Your task to perform on an android device: turn on notifications settings in the gmail app Image 0: 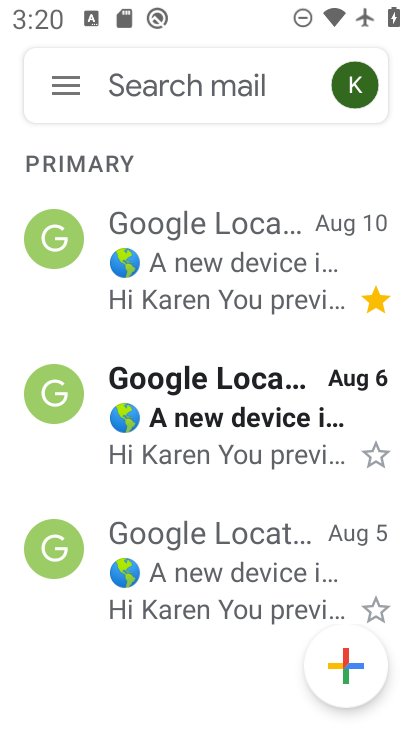
Step 0: click (58, 90)
Your task to perform on an android device: turn on notifications settings in the gmail app Image 1: 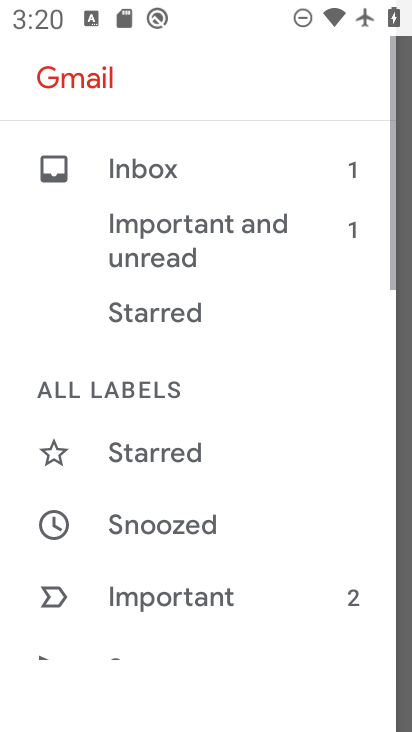
Step 1: drag from (197, 626) to (191, 298)
Your task to perform on an android device: turn on notifications settings in the gmail app Image 2: 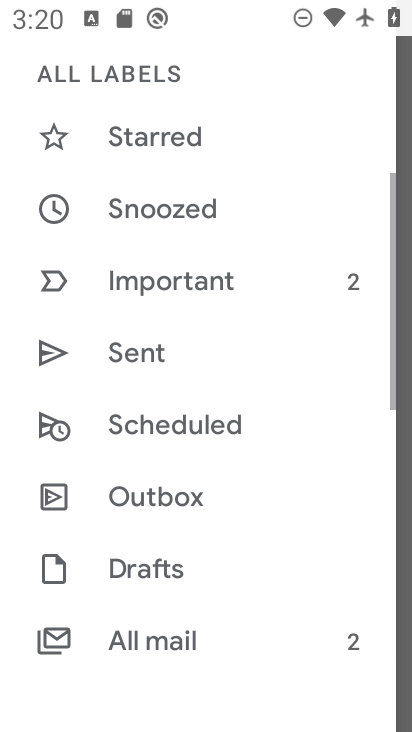
Step 2: drag from (205, 517) to (201, 269)
Your task to perform on an android device: turn on notifications settings in the gmail app Image 3: 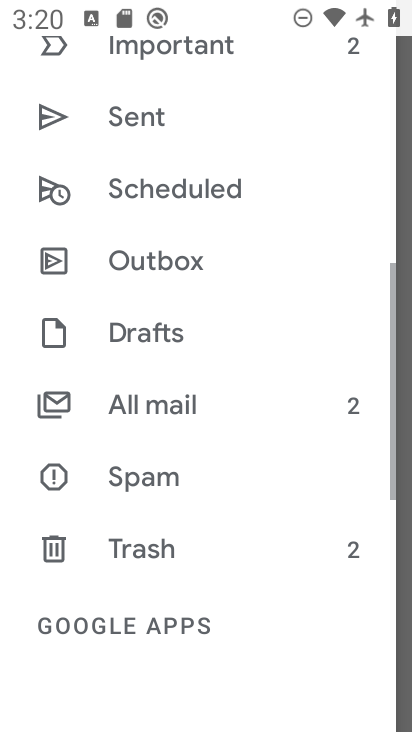
Step 3: drag from (216, 619) to (223, 287)
Your task to perform on an android device: turn on notifications settings in the gmail app Image 4: 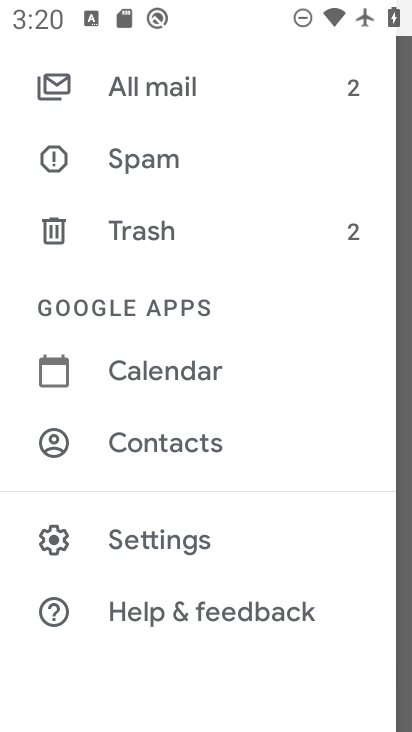
Step 4: click (190, 526)
Your task to perform on an android device: turn on notifications settings in the gmail app Image 5: 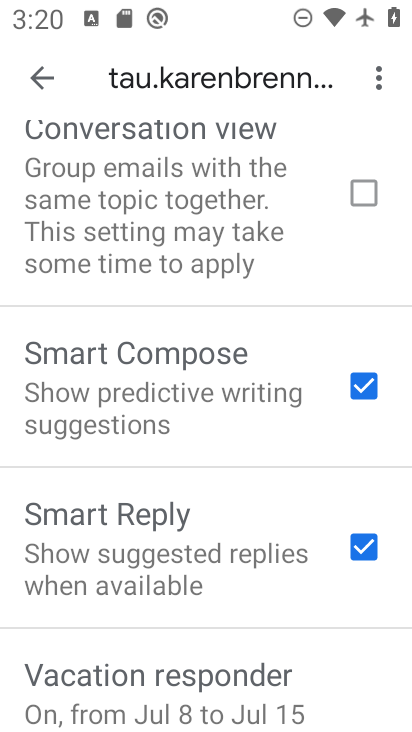
Step 5: drag from (190, 590) to (204, 185)
Your task to perform on an android device: turn on notifications settings in the gmail app Image 6: 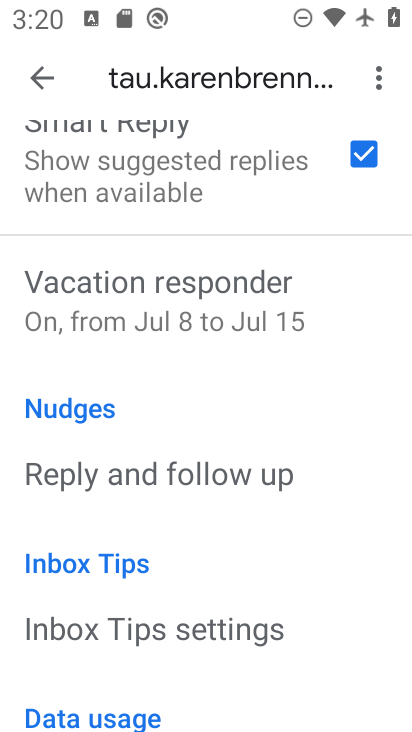
Step 6: drag from (212, 591) to (238, 148)
Your task to perform on an android device: turn on notifications settings in the gmail app Image 7: 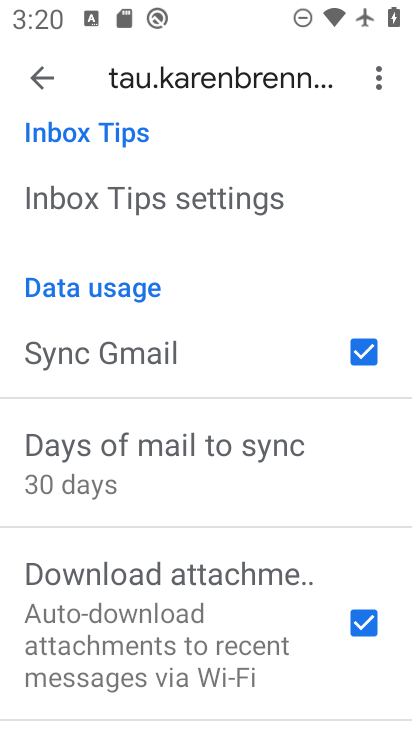
Step 7: drag from (222, 572) to (219, 200)
Your task to perform on an android device: turn on notifications settings in the gmail app Image 8: 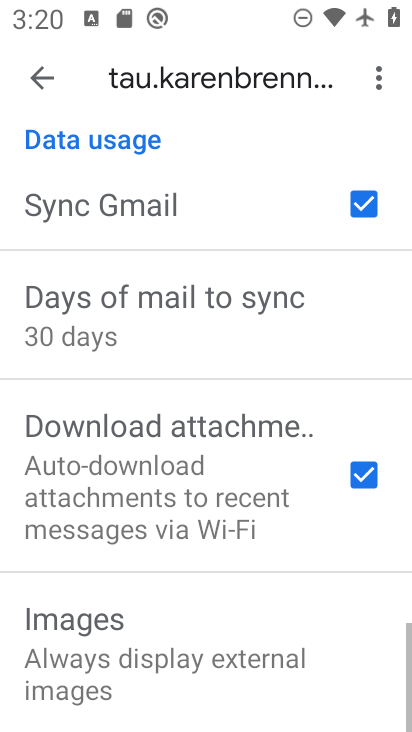
Step 8: drag from (204, 556) to (201, 211)
Your task to perform on an android device: turn on notifications settings in the gmail app Image 9: 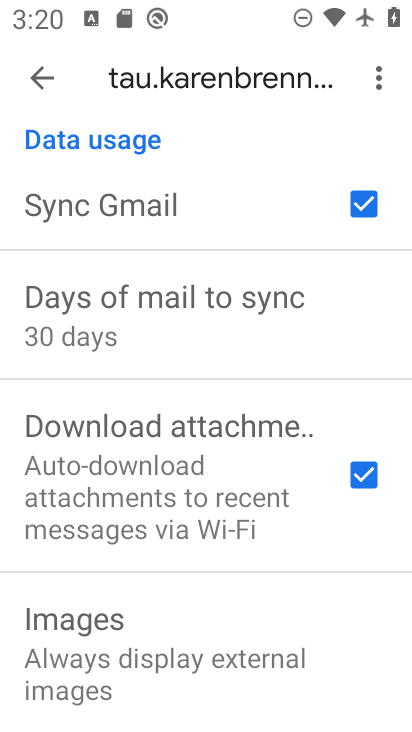
Step 9: drag from (201, 205) to (161, 572)
Your task to perform on an android device: turn on notifications settings in the gmail app Image 10: 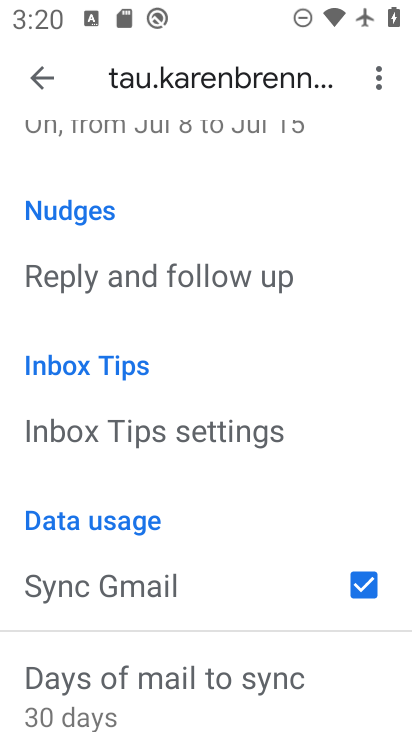
Step 10: drag from (174, 229) to (178, 581)
Your task to perform on an android device: turn on notifications settings in the gmail app Image 11: 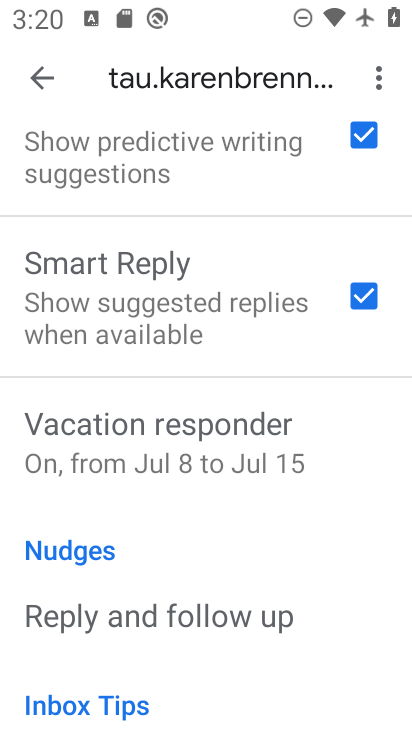
Step 11: drag from (166, 251) to (196, 572)
Your task to perform on an android device: turn on notifications settings in the gmail app Image 12: 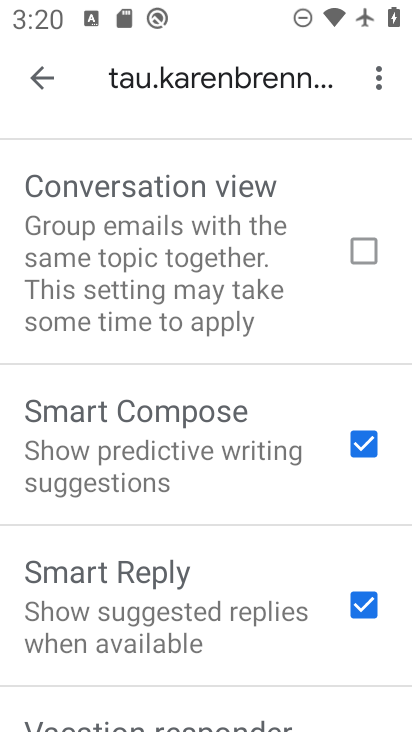
Step 12: drag from (161, 322) to (194, 580)
Your task to perform on an android device: turn on notifications settings in the gmail app Image 13: 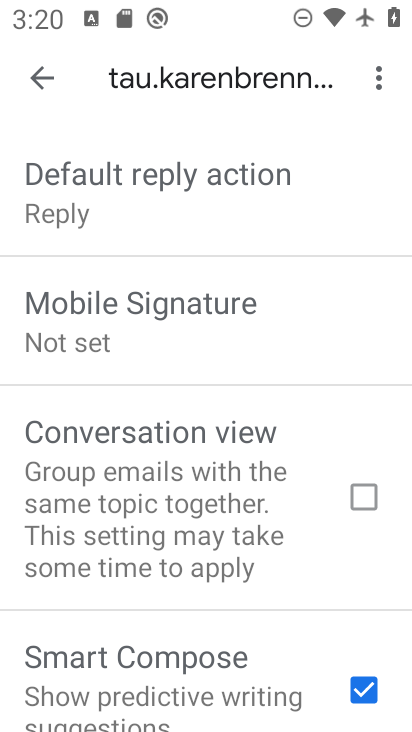
Step 13: drag from (199, 302) to (240, 625)
Your task to perform on an android device: turn on notifications settings in the gmail app Image 14: 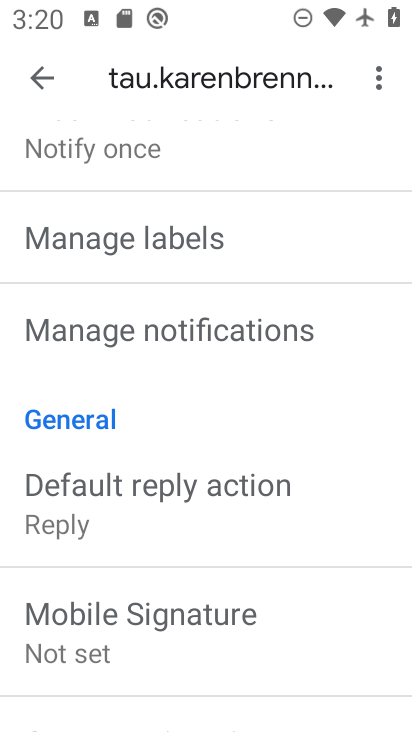
Step 14: click (240, 322)
Your task to perform on an android device: turn on notifications settings in the gmail app Image 15: 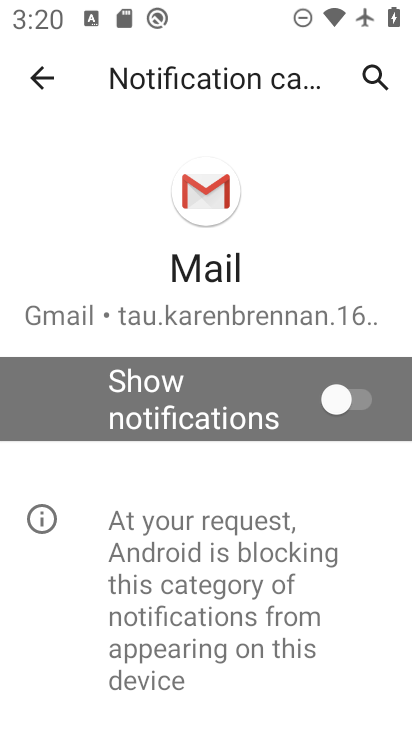
Step 15: click (351, 393)
Your task to perform on an android device: turn on notifications settings in the gmail app Image 16: 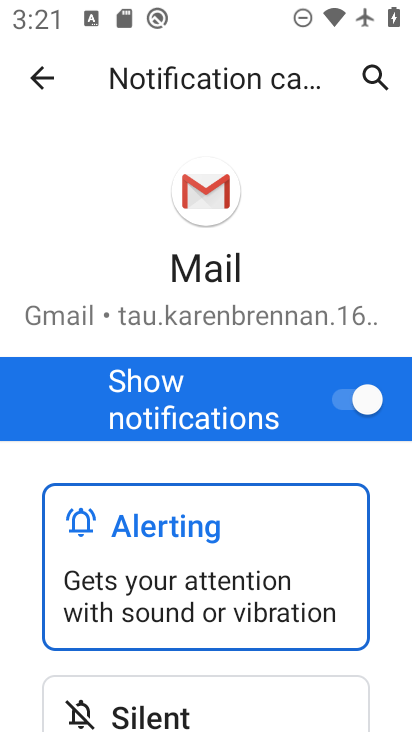
Step 16: task complete